Your task to perform on an android device: see creations saved in the google photos Image 0: 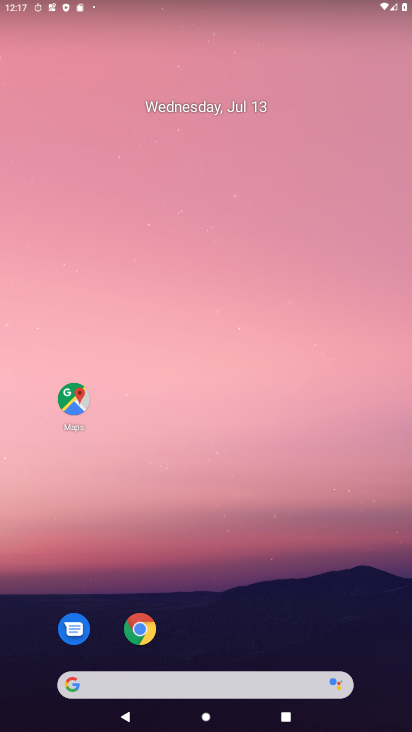
Step 0: drag from (211, 626) to (209, 232)
Your task to perform on an android device: see creations saved in the google photos Image 1: 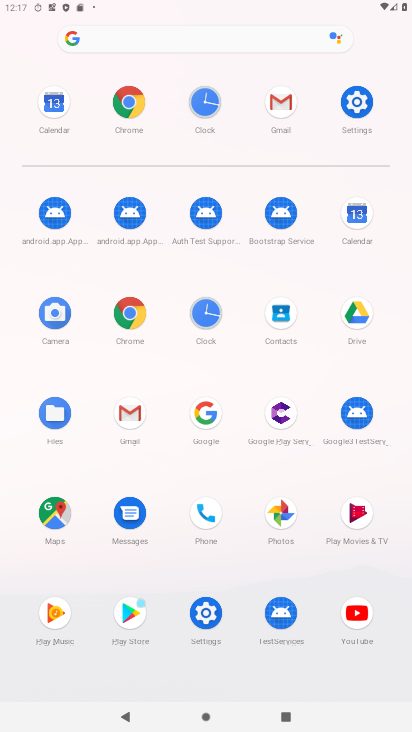
Step 1: click (285, 519)
Your task to perform on an android device: see creations saved in the google photos Image 2: 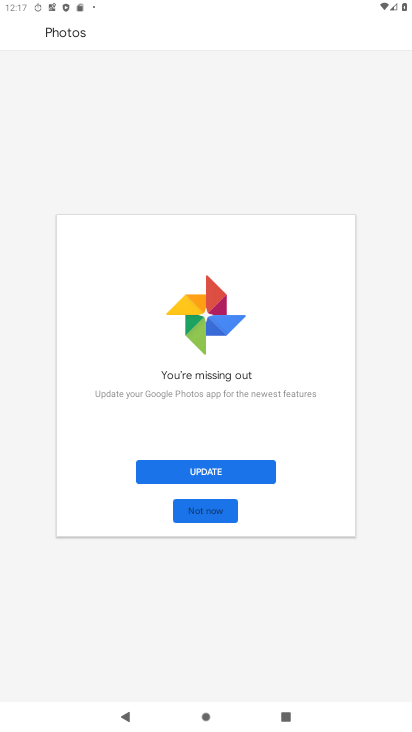
Step 2: click (208, 515)
Your task to perform on an android device: see creations saved in the google photos Image 3: 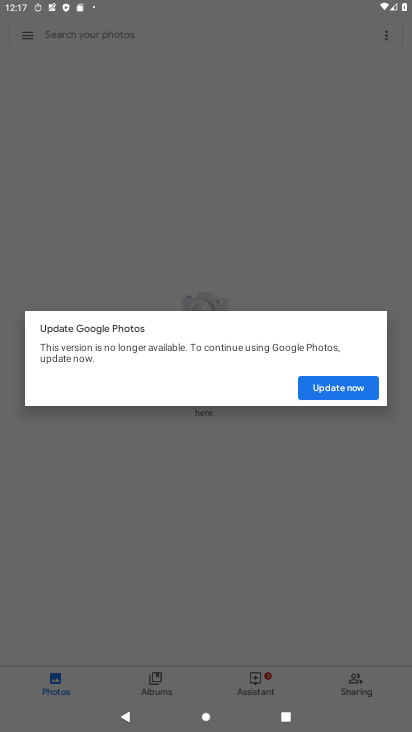
Step 3: click (323, 393)
Your task to perform on an android device: see creations saved in the google photos Image 4: 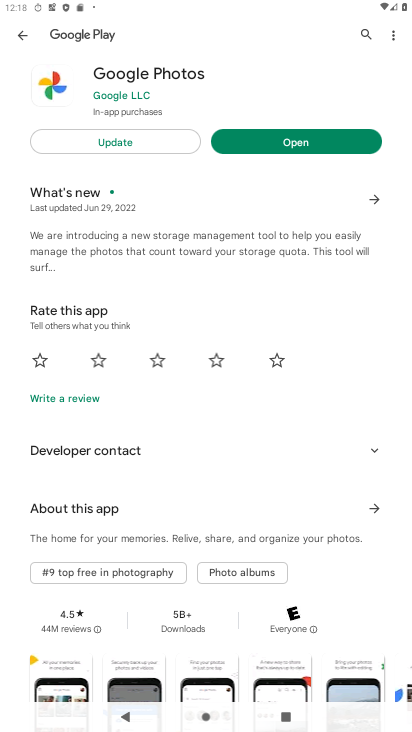
Step 4: click (266, 145)
Your task to perform on an android device: see creations saved in the google photos Image 5: 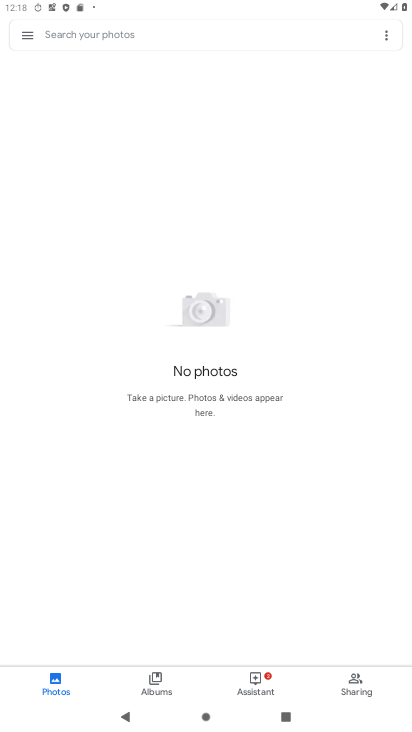
Step 5: click (108, 34)
Your task to perform on an android device: see creations saved in the google photos Image 6: 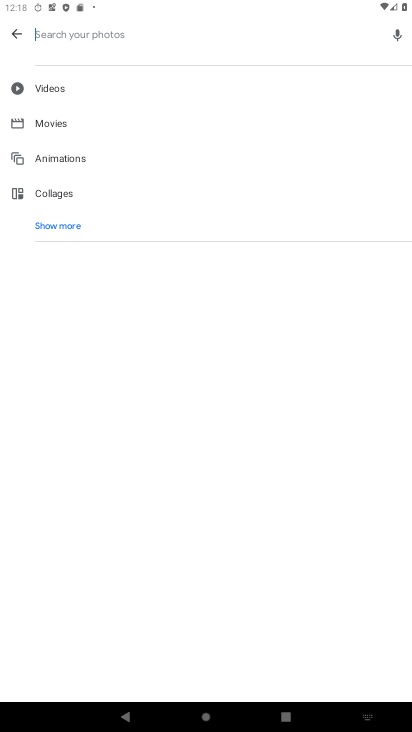
Step 6: click (67, 225)
Your task to perform on an android device: see creations saved in the google photos Image 7: 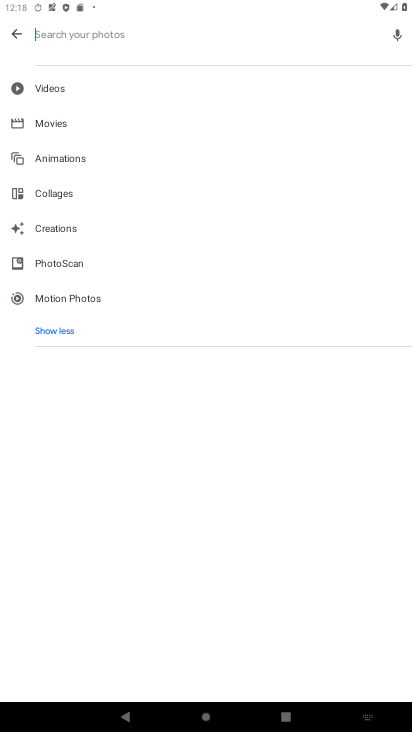
Step 7: click (70, 219)
Your task to perform on an android device: see creations saved in the google photos Image 8: 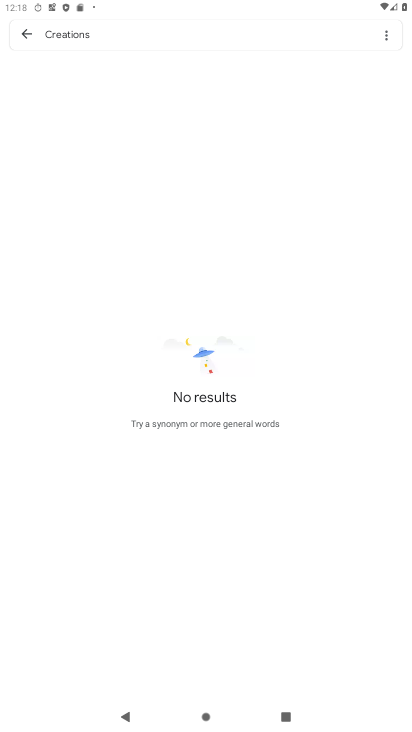
Step 8: task complete